Your task to perform on an android device: turn on data saver in the chrome app Image 0: 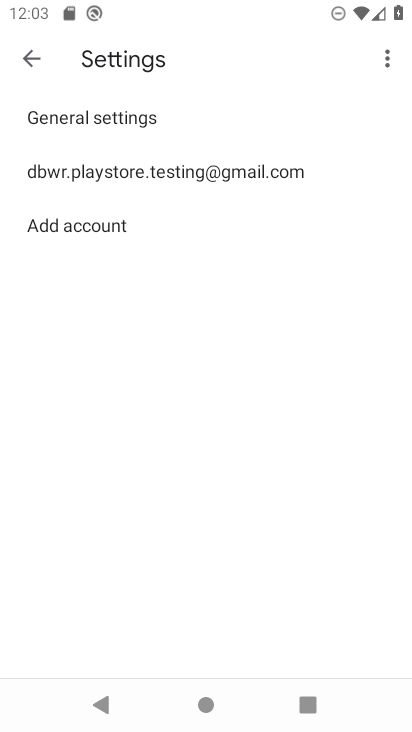
Step 0: press home button
Your task to perform on an android device: turn on data saver in the chrome app Image 1: 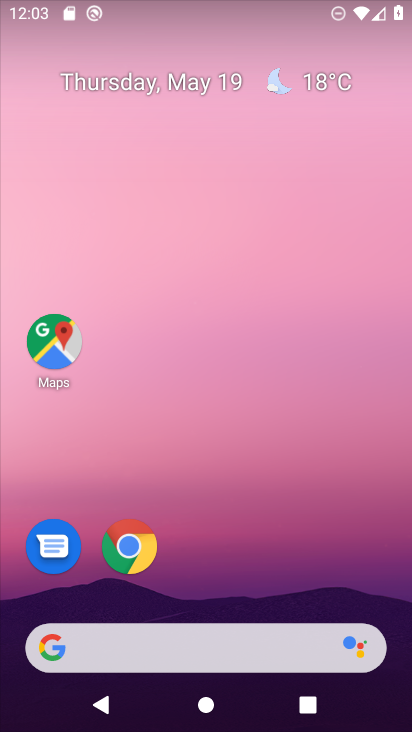
Step 1: click (164, 564)
Your task to perform on an android device: turn on data saver in the chrome app Image 2: 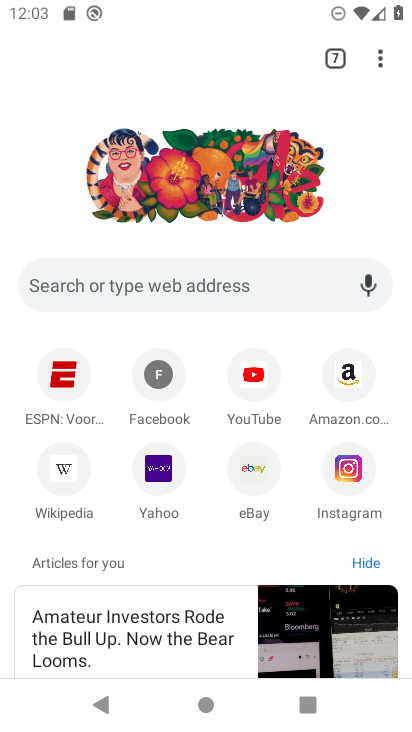
Step 2: click (383, 63)
Your task to perform on an android device: turn on data saver in the chrome app Image 3: 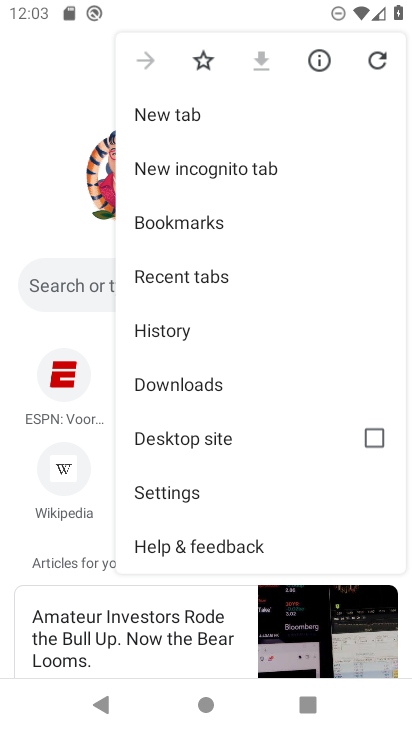
Step 3: click (150, 491)
Your task to perform on an android device: turn on data saver in the chrome app Image 4: 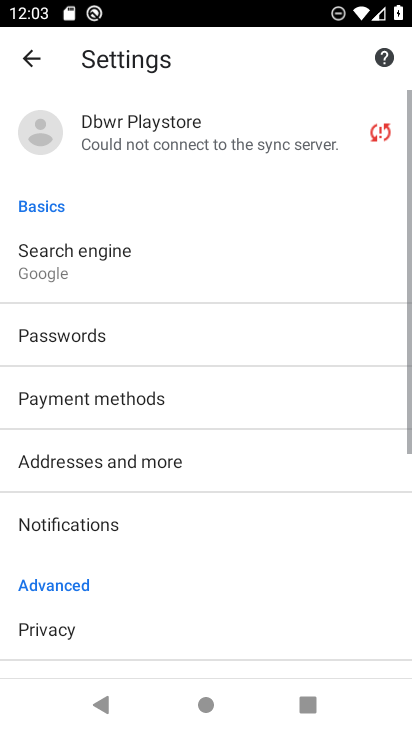
Step 4: drag from (80, 614) to (101, 239)
Your task to perform on an android device: turn on data saver in the chrome app Image 5: 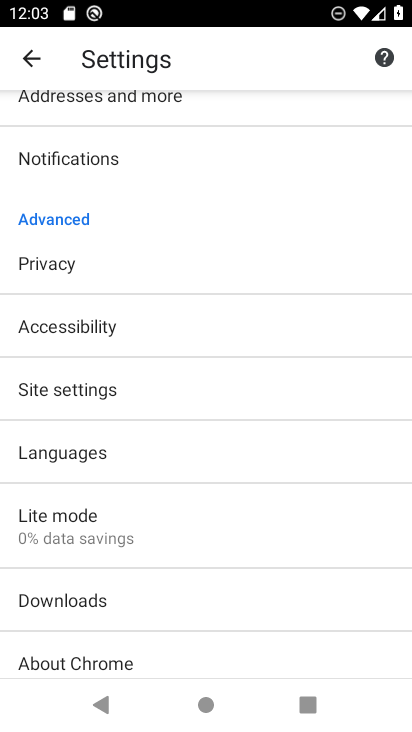
Step 5: click (75, 511)
Your task to perform on an android device: turn on data saver in the chrome app Image 6: 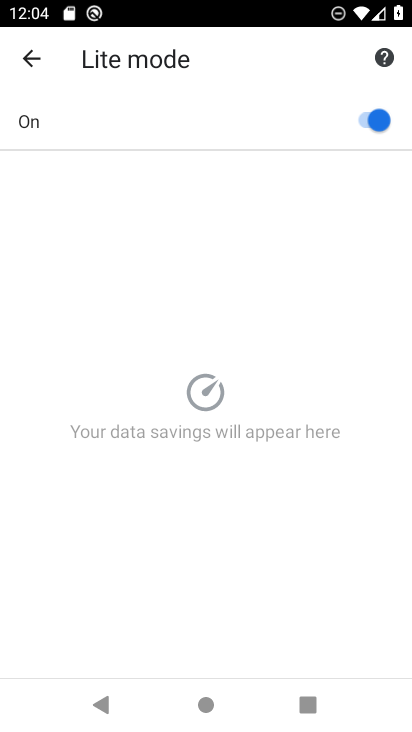
Step 6: task complete